Your task to perform on an android device: open chrome privacy settings Image 0: 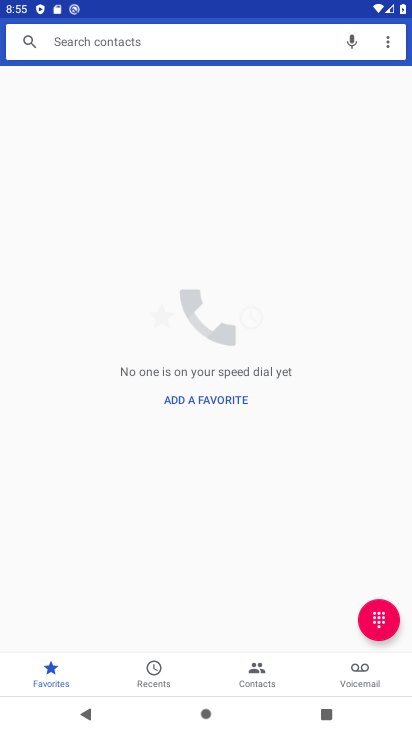
Step 0: press home button
Your task to perform on an android device: open chrome privacy settings Image 1: 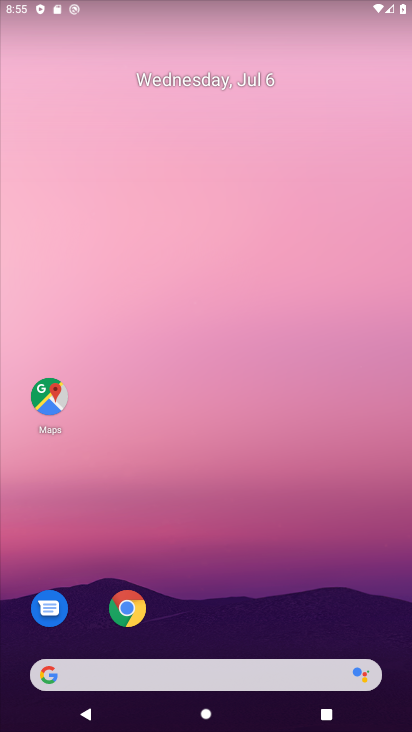
Step 1: drag from (333, 602) to (234, 161)
Your task to perform on an android device: open chrome privacy settings Image 2: 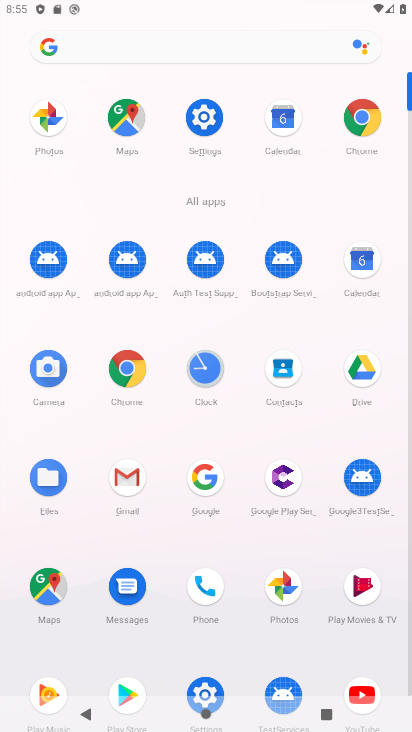
Step 2: click (367, 124)
Your task to perform on an android device: open chrome privacy settings Image 3: 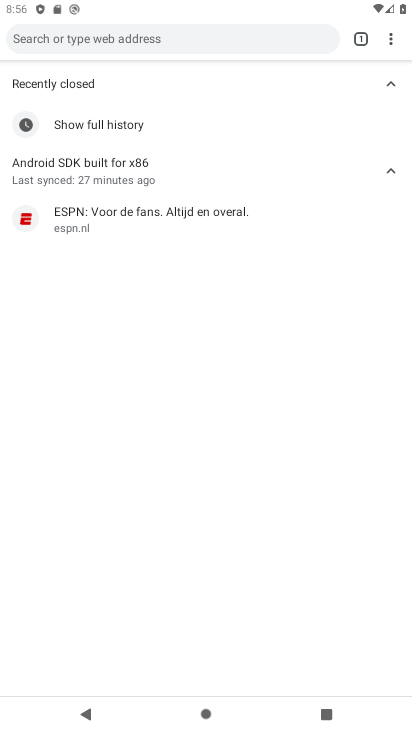
Step 3: click (389, 45)
Your task to perform on an android device: open chrome privacy settings Image 4: 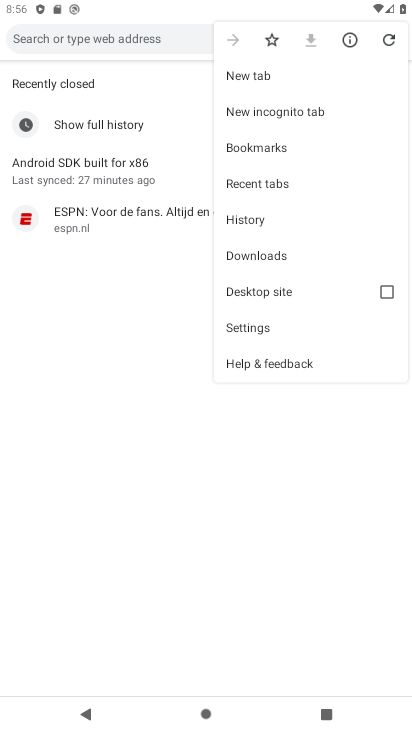
Step 4: click (357, 332)
Your task to perform on an android device: open chrome privacy settings Image 5: 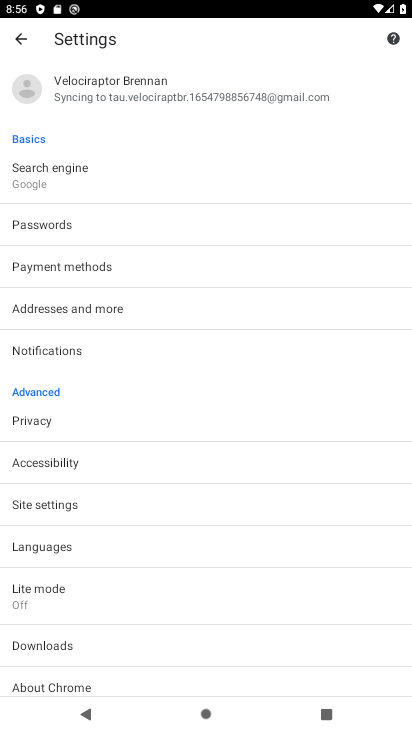
Step 5: click (283, 424)
Your task to perform on an android device: open chrome privacy settings Image 6: 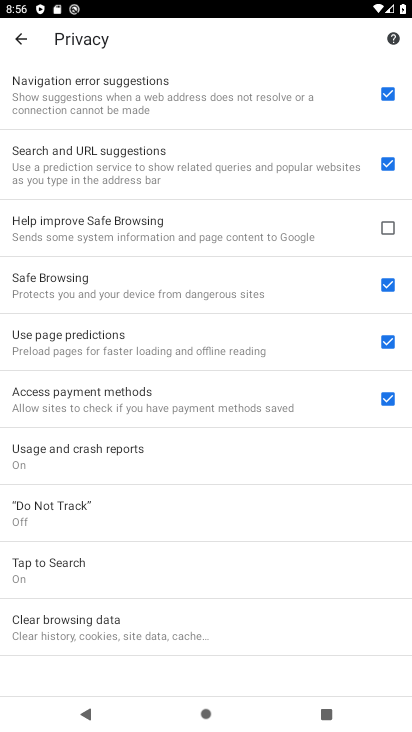
Step 6: task complete